Your task to perform on an android device: What's the news in Taiwan? Image 0: 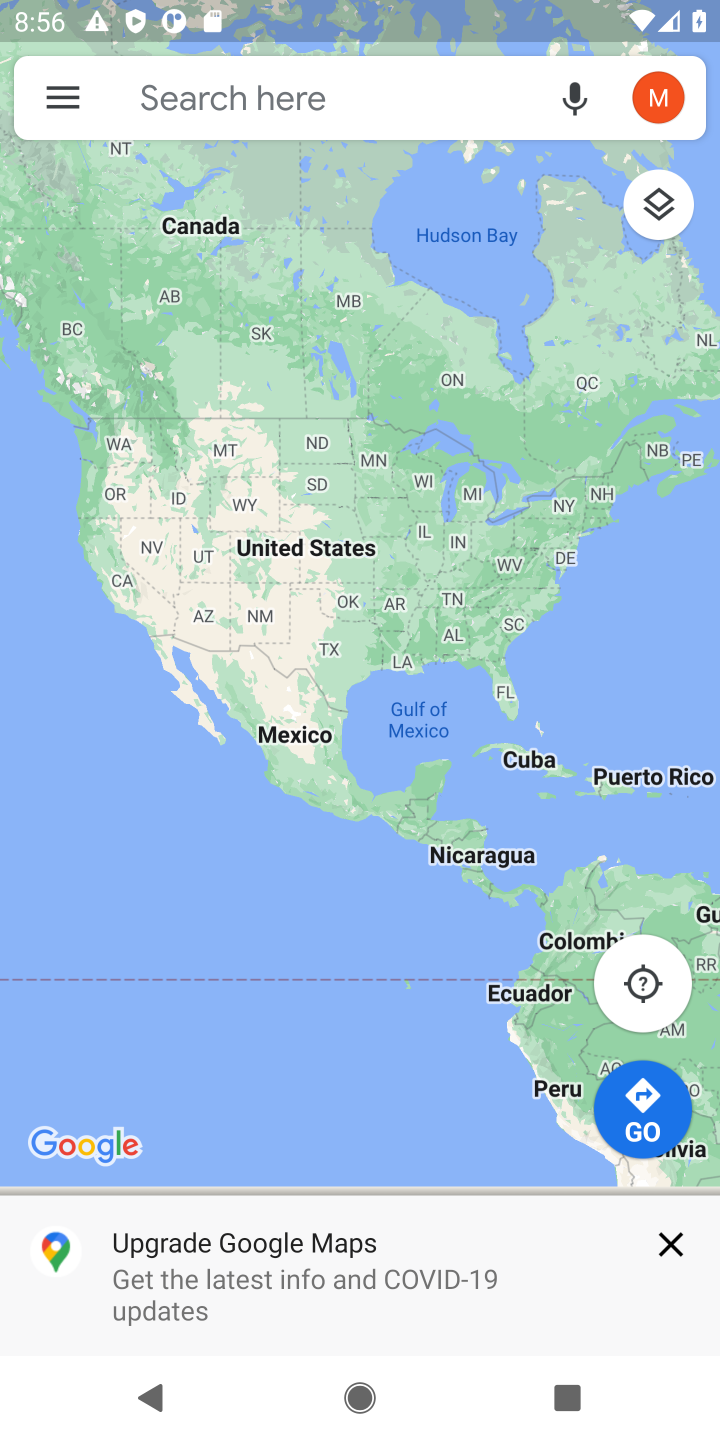
Step 0: press home button
Your task to perform on an android device: What's the news in Taiwan? Image 1: 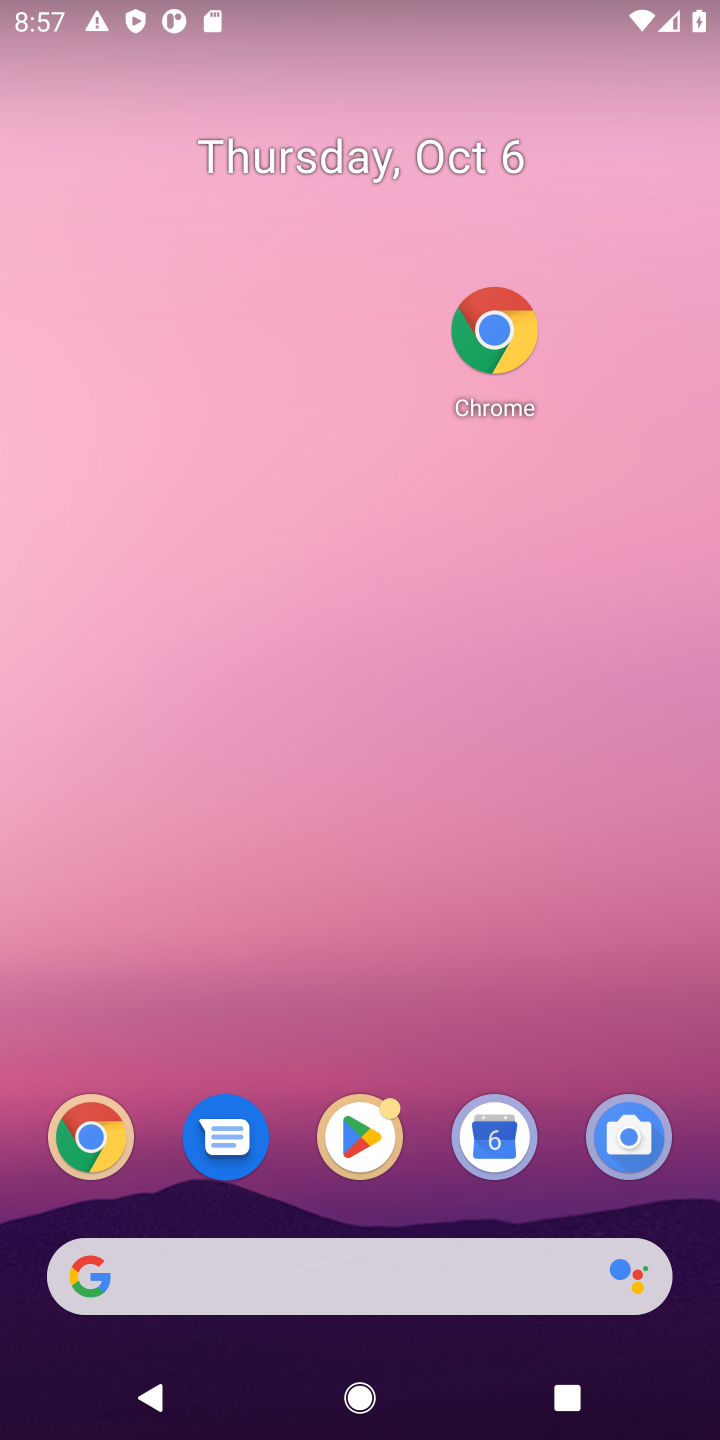
Step 1: click (316, 1272)
Your task to perform on an android device: What's the news in Taiwan? Image 2: 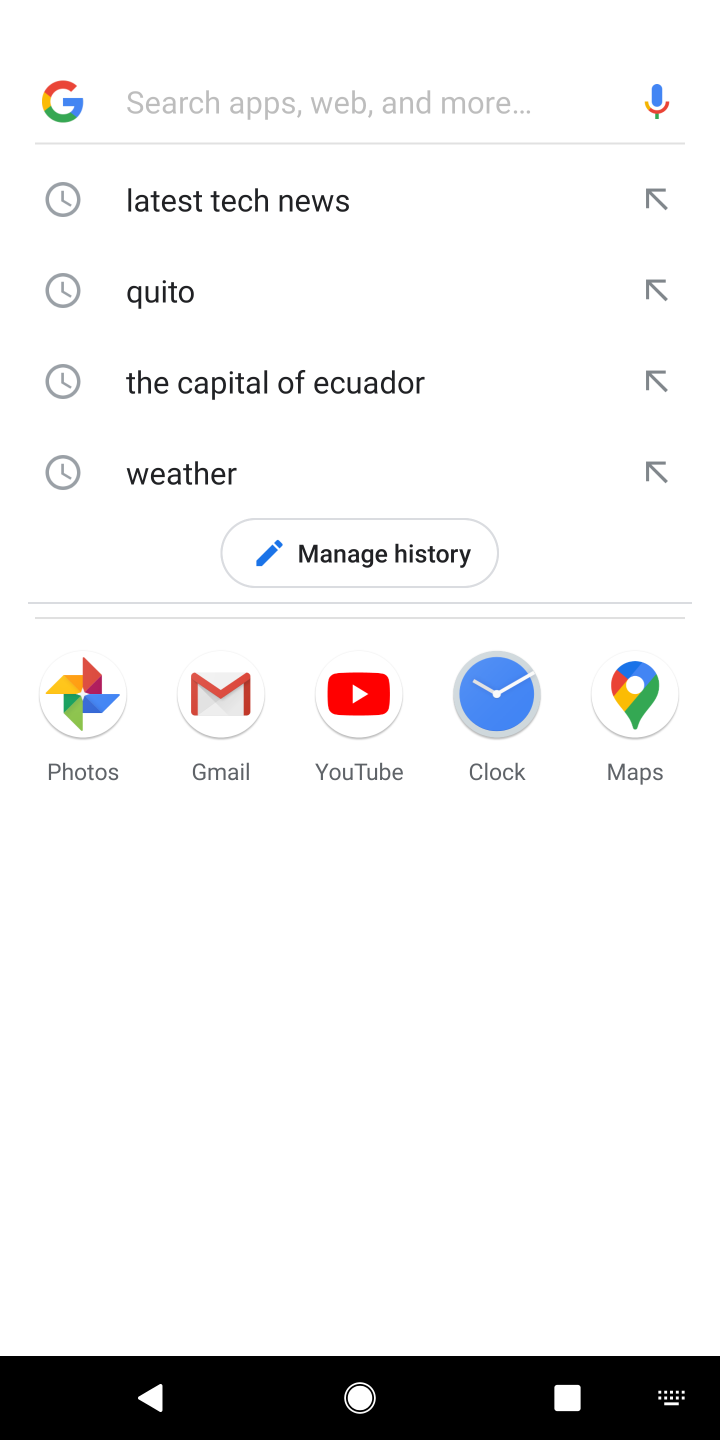
Step 2: type "news in taiwan"
Your task to perform on an android device: What's the news in Taiwan? Image 3: 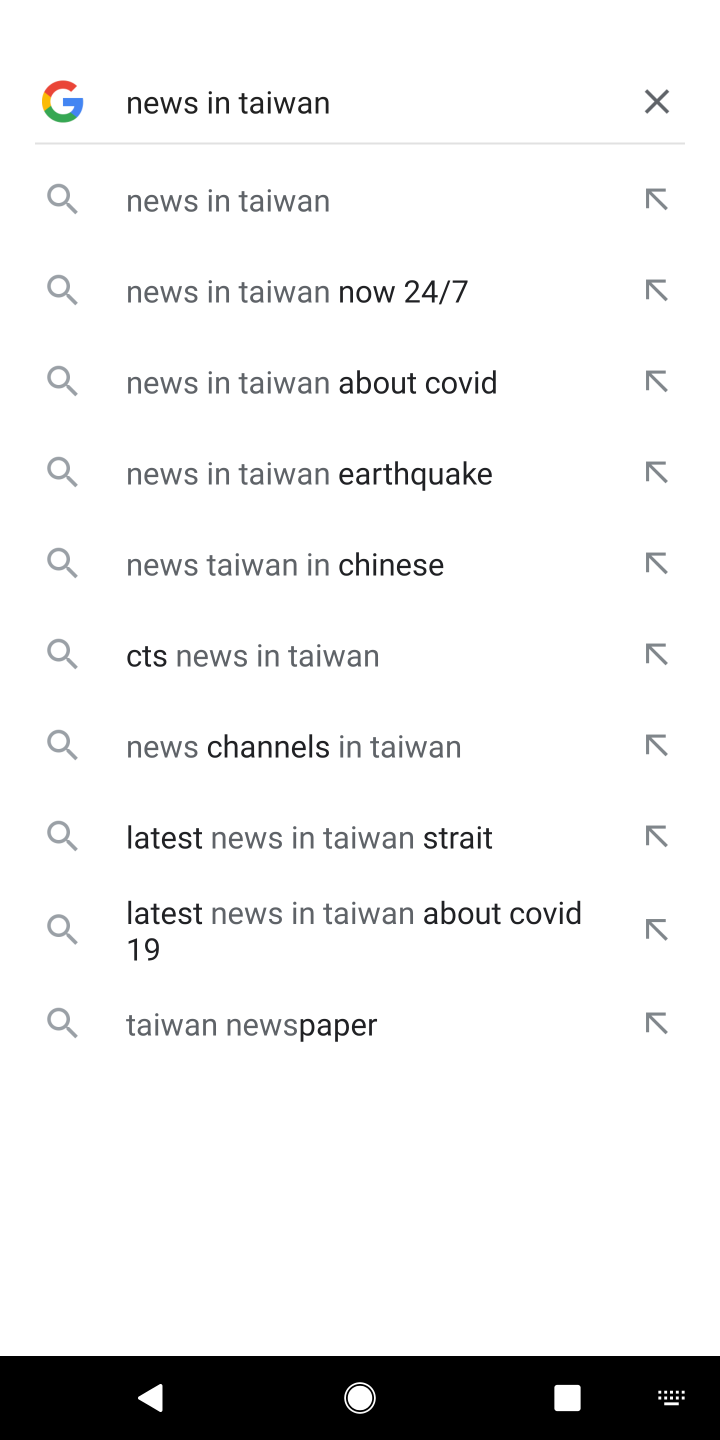
Step 3: click (264, 199)
Your task to perform on an android device: What's the news in Taiwan? Image 4: 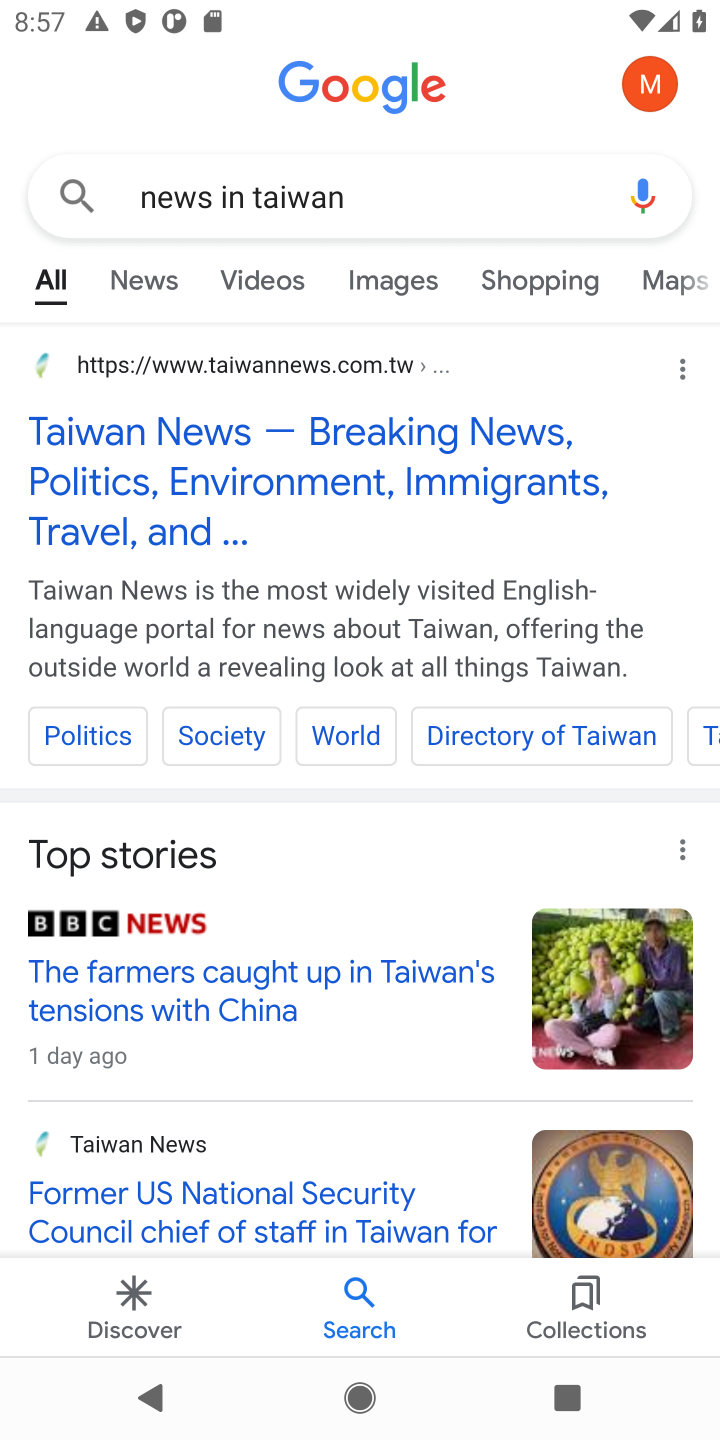
Step 4: click (167, 450)
Your task to perform on an android device: What's the news in Taiwan? Image 5: 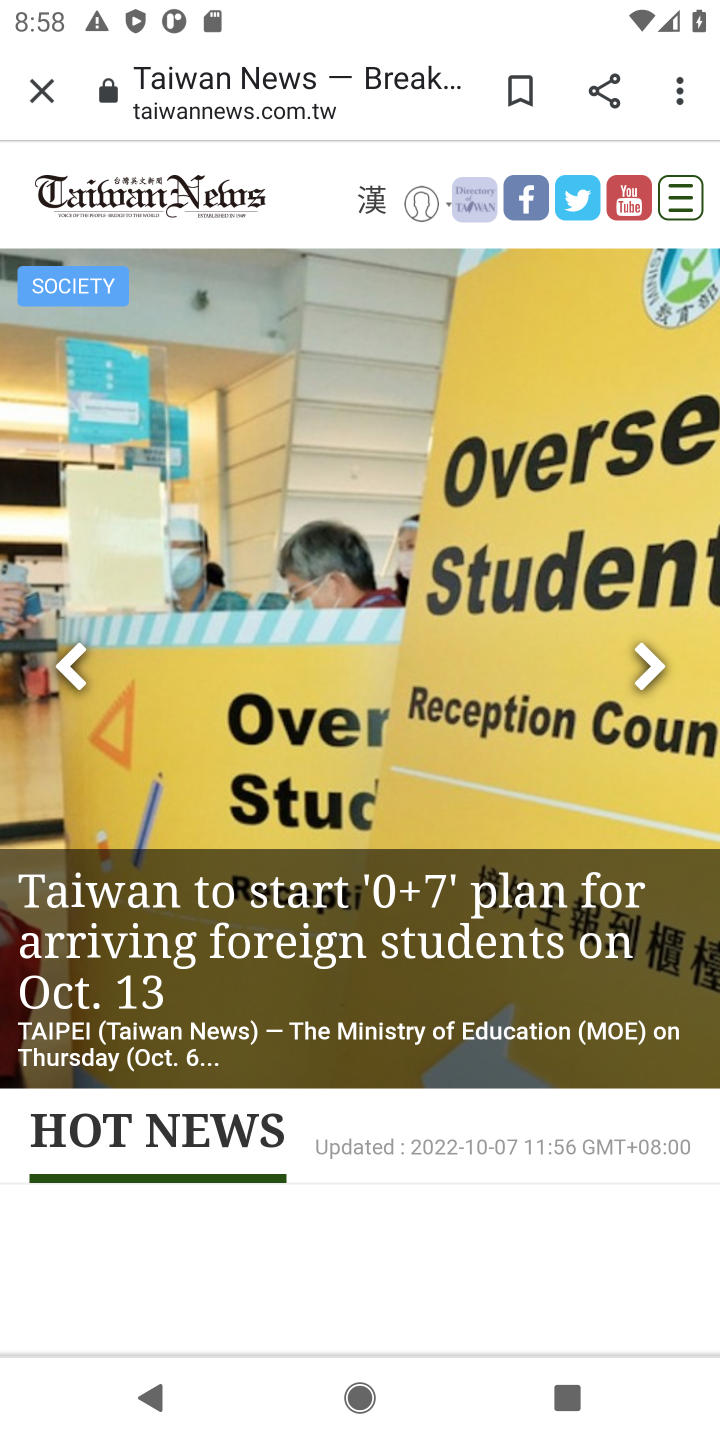
Step 5: task complete